Your task to perform on an android device: add a label to a message in the gmail app Image 0: 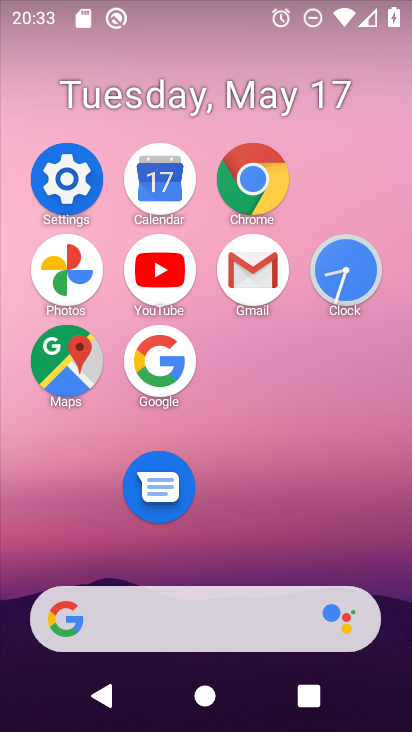
Step 0: click (243, 304)
Your task to perform on an android device: add a label to a message in the gmail app Image 1: 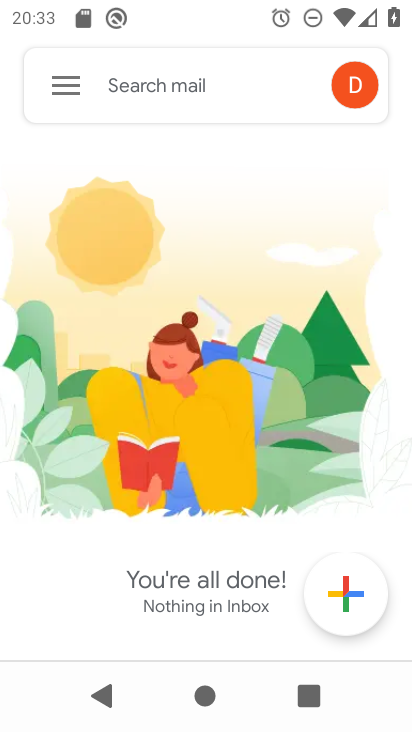
Step 1: click (66, 91)
Your task to perform on an android device: add a label to a message in the gmail app Image 2: 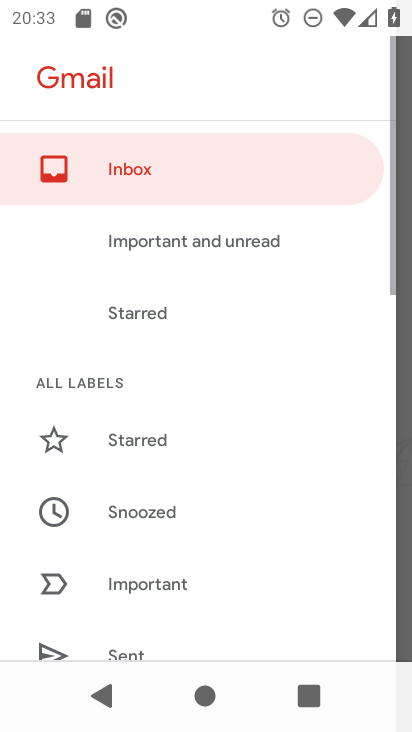
Step 2: drag from (242, 540) to (247, 197)
Your task to perform on an android device: add a label to a message in the gmail app Image 3: 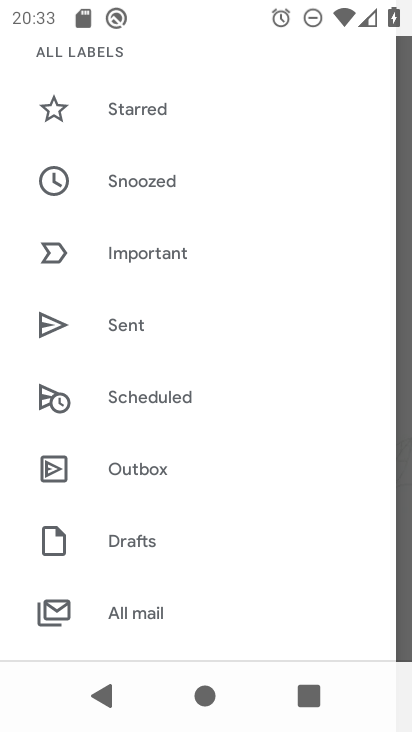
Step 3: drag from (204, 489) to (219, 165)
Your task to perform on an android device: add a label to a message in the gmail app Image 4: 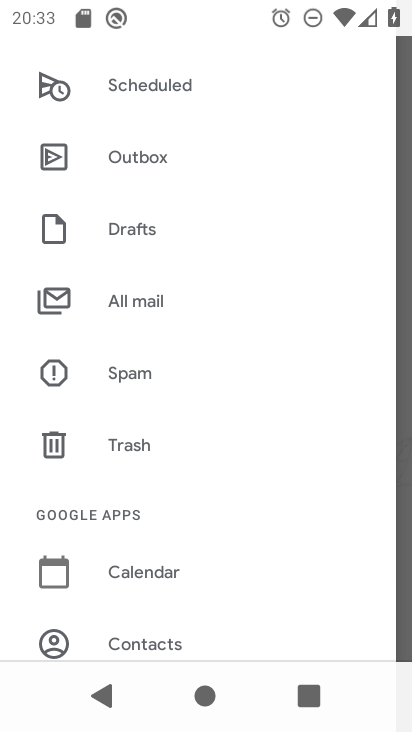
Step 4: drag from (166, 564) to (172, 382)
Your task to perform on an android device: add a label to a message in the gmail app Image 5: 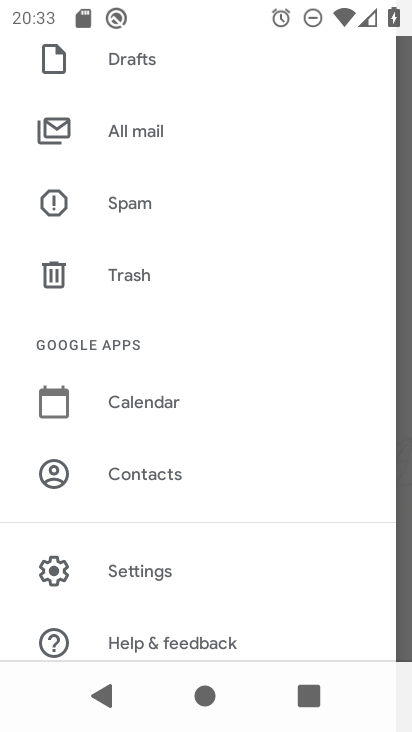
Step 5: click (145, 121)
Your task to perform on an android device: add a label to a message in the gmail app Image 6: 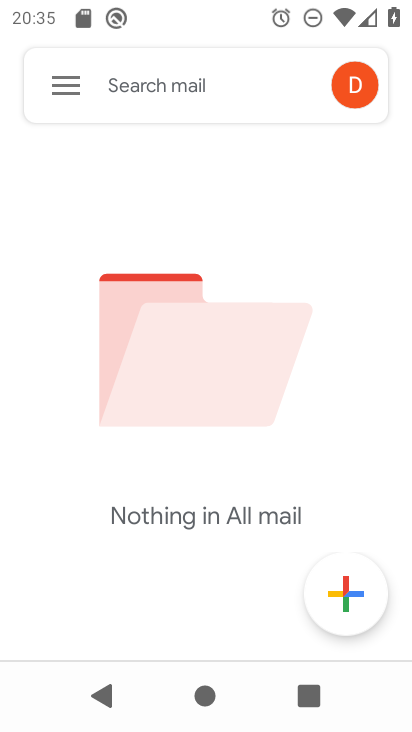
Step 6: click (68, 71)
Your task to perform on an android device: add a label to a message in the gmail app Image 7: 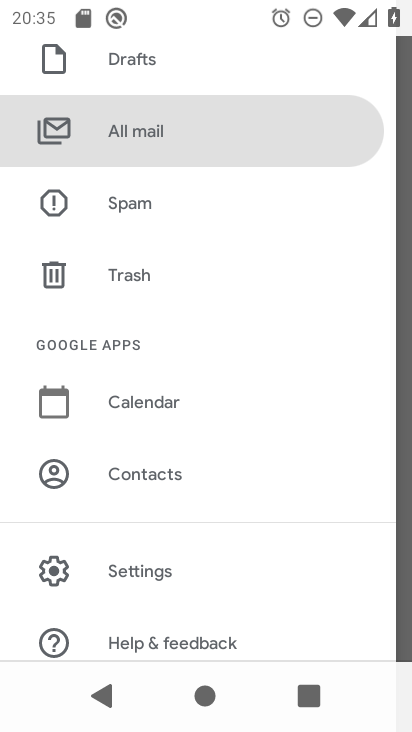
Step 7: click (197, 151)
Your task to perform on an android device: add a label to a message in the gmail app Image 8: 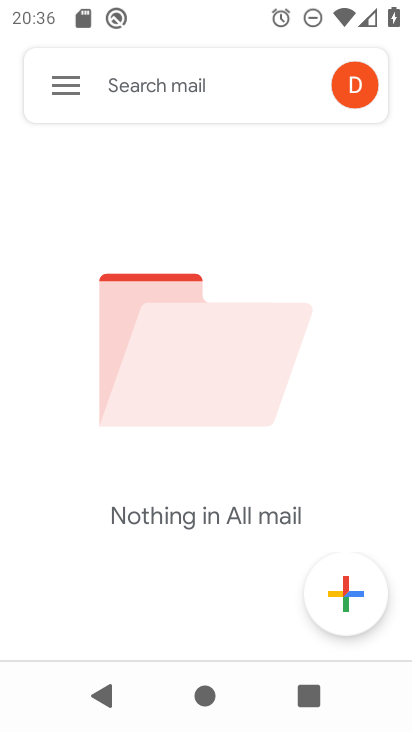
Step 8: task complete